Your task to perform on an android device: allow cookies in the chrome app Image 0: 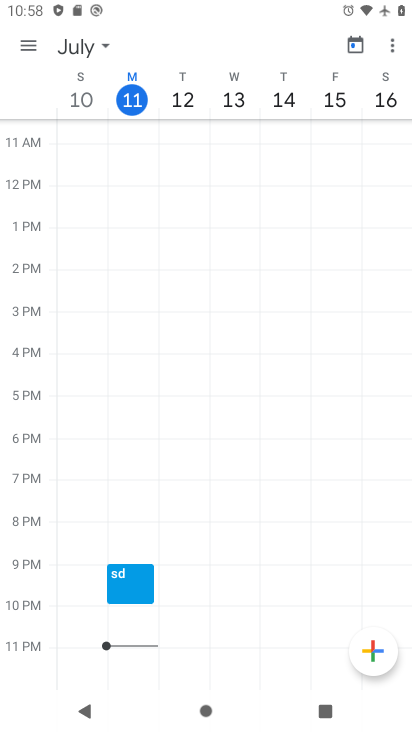
Step 0: press home button
Your task to perform on an android device: allow cookies in the chrome app Image 1: 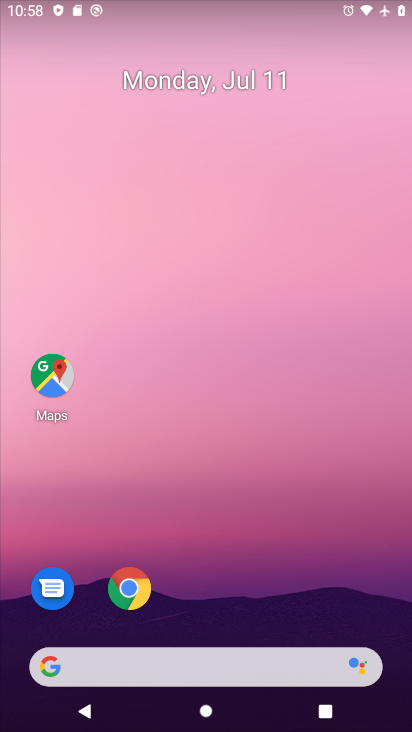
Step 1: click (143, 586)
Your task to perform on an android device: allow cookies in the chrome app Image 2: 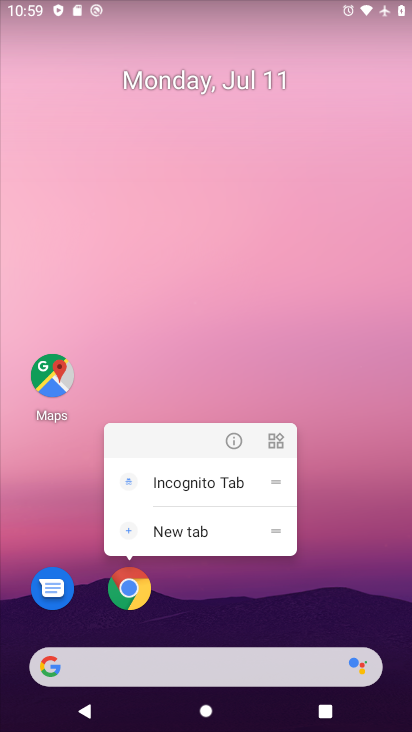
Step 2: click (127, 597)
Your task to perform on an android device: allow cookies in the chrome app Image 3: 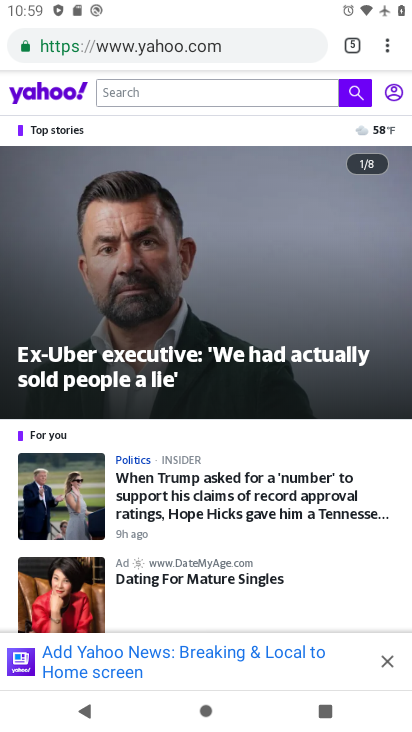
Step 3: drag from (389, 46) to (256, 555)
Your task to perform on an android device: allow cookies in the chrome app Image 4: 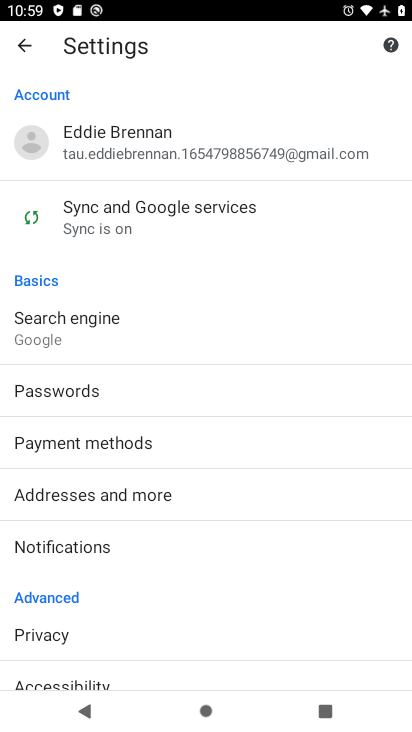
Step 4: click (54, 632)
Your task to perform on an android device: allow cookies in the chrome app Image 5: 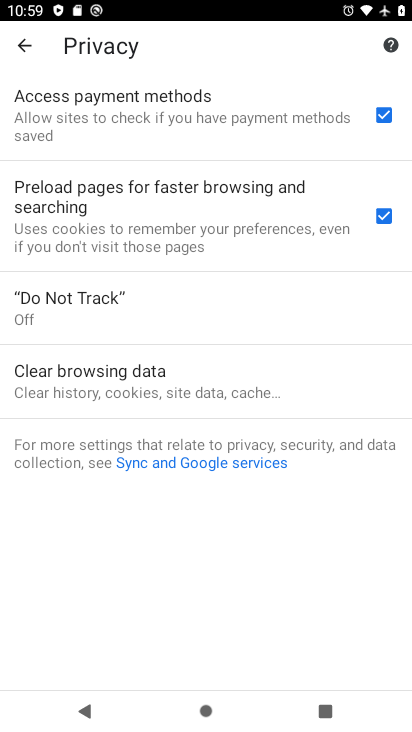
Step 5: click (251, 382)
Your task to perform on an android device: allow cookies in the chrome app Image 6: 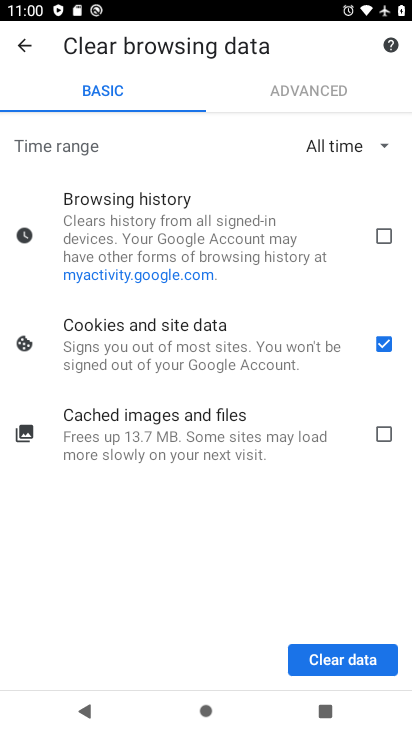
Step 6: click (347, 667)
Your task to perform on an android device: allow cookies in the chrome app Image 7: 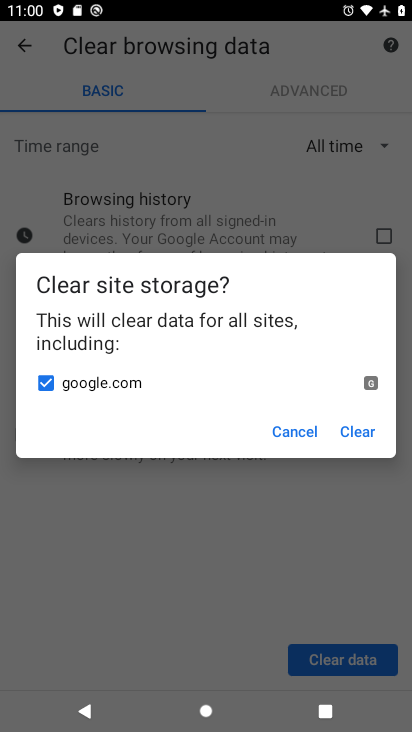
Step 7: click (363, 427)
Your task to perform on an android device: allow cookies in the chrome app Image 8: 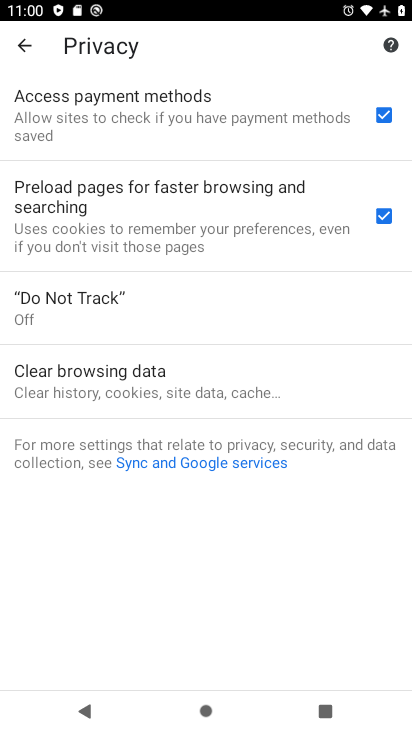
Step 8: task complete